Your task to perform on an android device: Go to Yahoo.com Image 0: 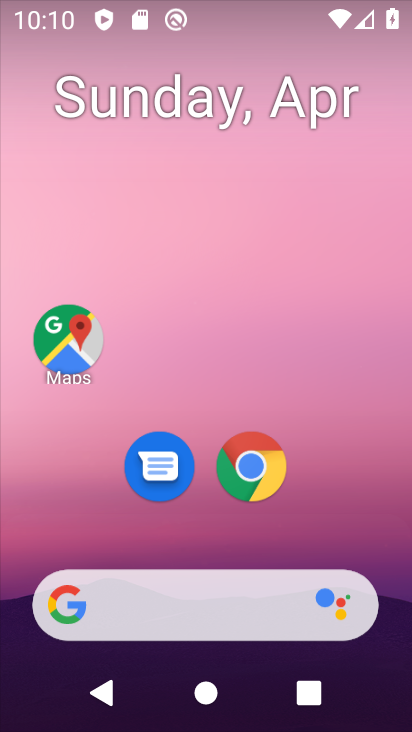
Step 0: drag from (361, 518) to (345, 69)
Your task to perform on an android device: Go to Yahoo.com Image 1: 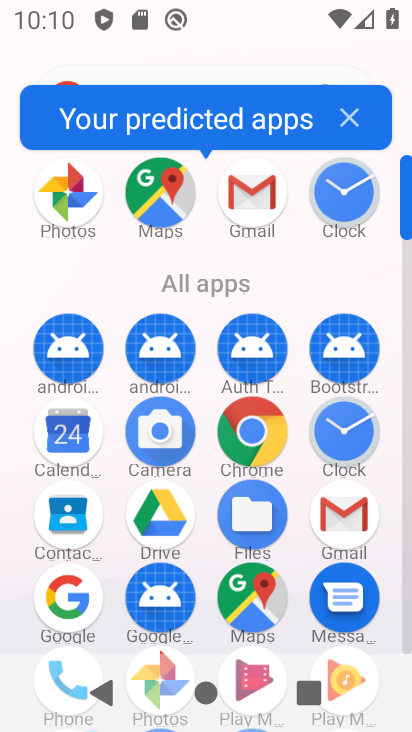
Step 1: click (267, 425)
Your task to perform on an android device: Go to Yahoo.com Image 2: 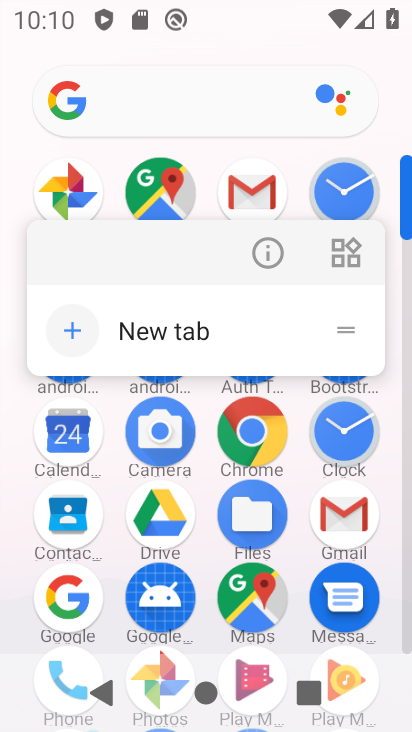
Step 2: click (276, 432)
Your task to perform on an android device: Go to Yahoo.com Image 3: 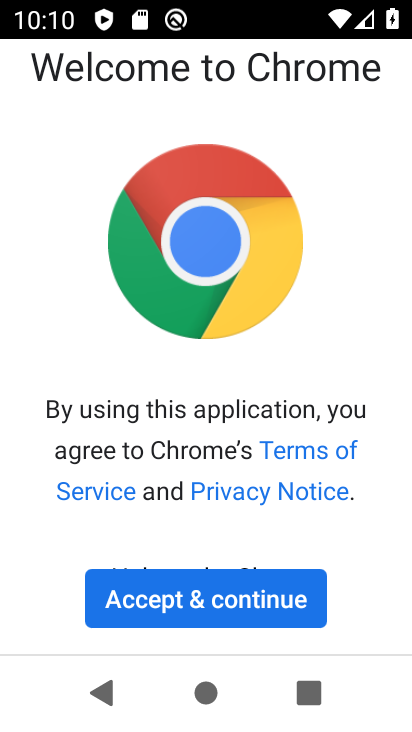
Step 3: click (278, 593)
Your task to perform on an android device: Go to Yahoo.com Image 4: 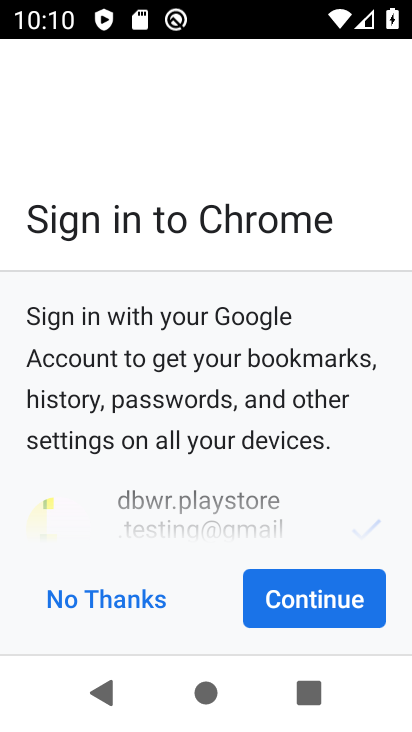
Step 4: click (318, 602)
Your task to perform on an android device: Go to Yahoo.com Image 5: 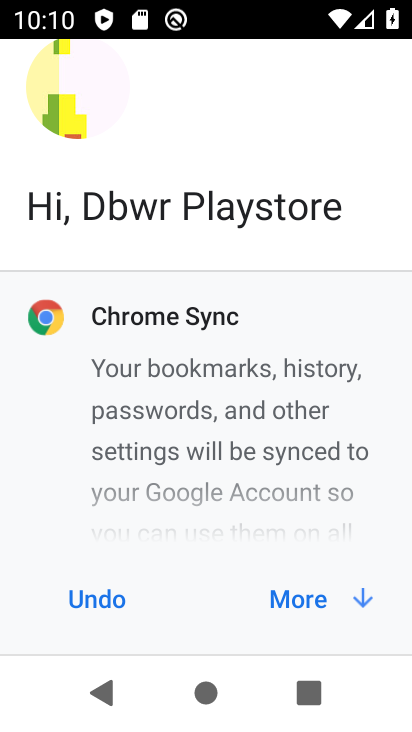
Step 5: click (311, 604)
Your task to perform on an android device: Go to Yahoo.com Image 6: 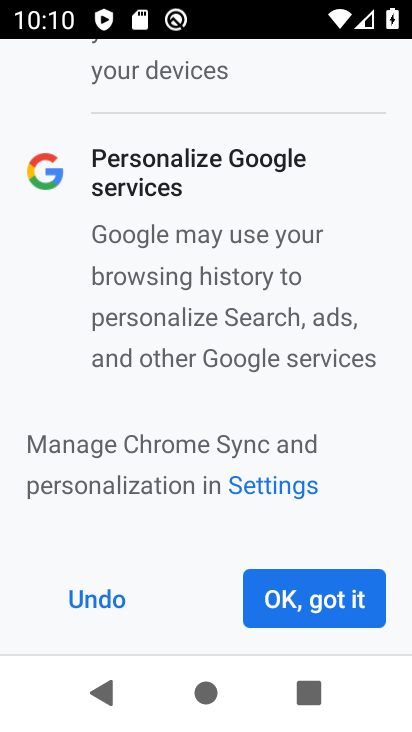
Step 6: click (294, 610)
Your task to perform on an android device: Go to Yahoo.com Image 7: 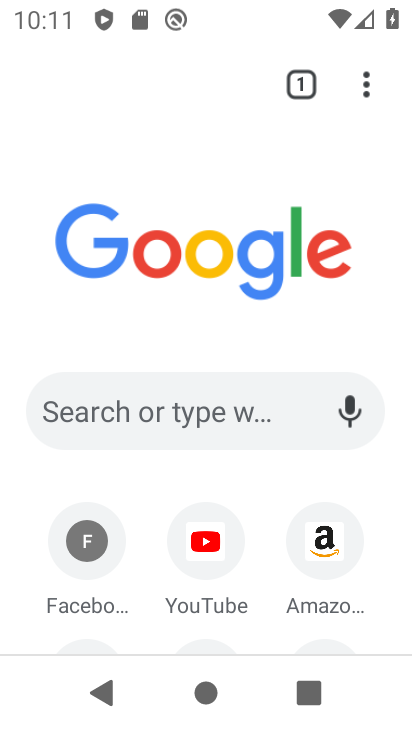
Step 7: drag from (384, 492) to (380, 189)
Your task to perform on an android device: Go to Yahoo.com Image 8: 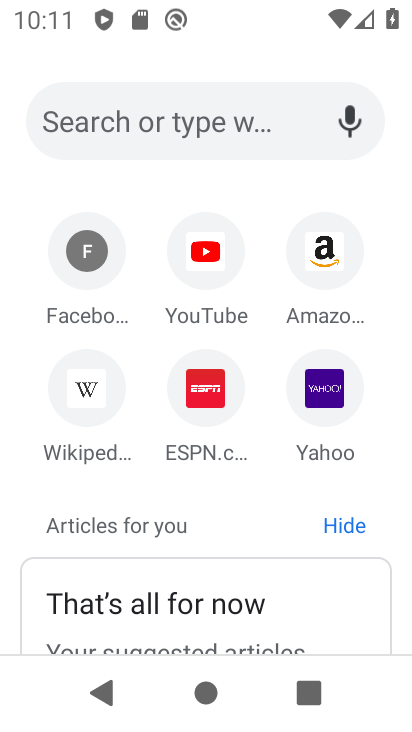
Step 8: click (326, 392)
Your task to perform on an android device: Go to Yahoo.com Image 9: 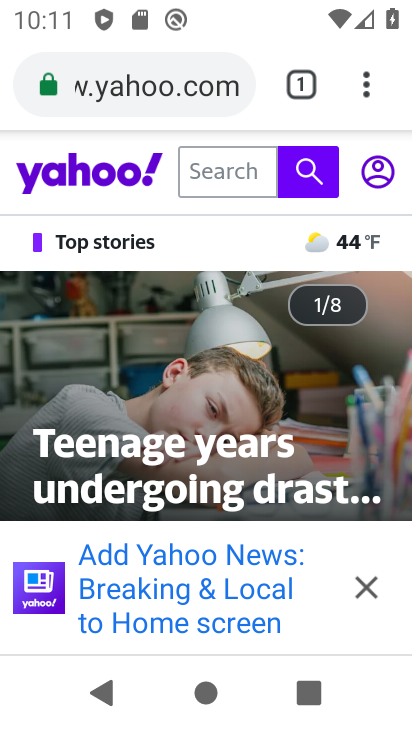
Step 9: task complete